Your task to perform on an android device: Go to Yahoo.com Image 0: 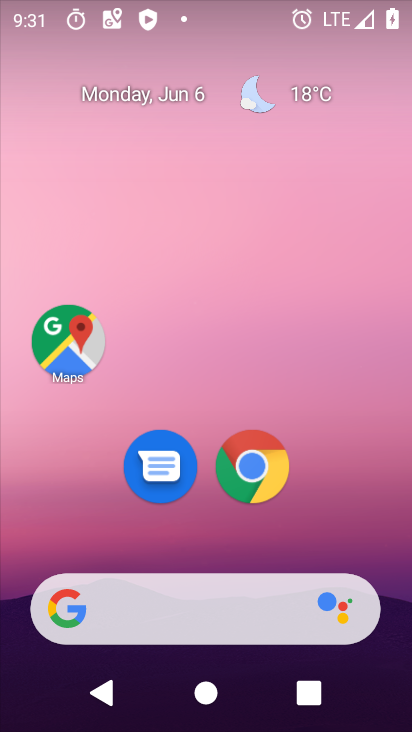
Step 0: drag from (216, 499) to (260, 139)
Your task to perform on an android device: Go to Yahoo.com Image 1: 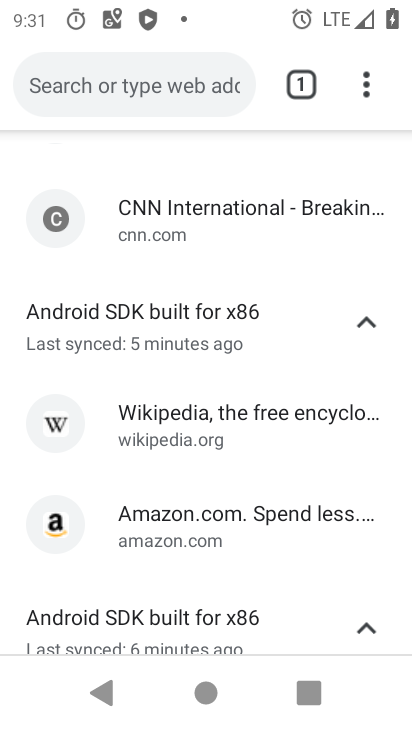
Step 1: press home button
Your task to perform on an android device: Go to Yahoo.com Image 2: 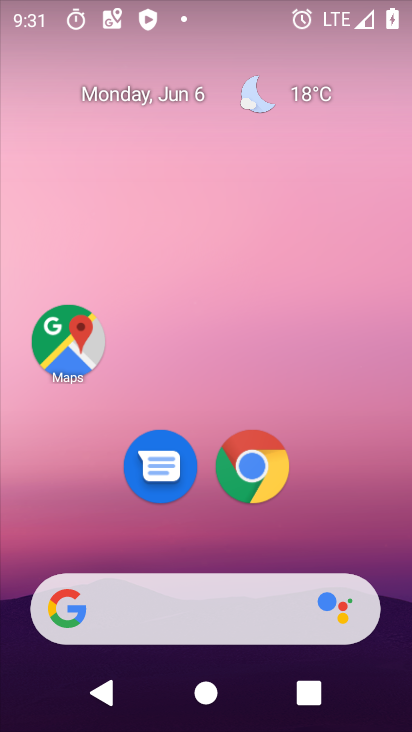
Step 2: click (178, 615)
Your task to perform on an android device: Go to Yahoo.com Image 3: 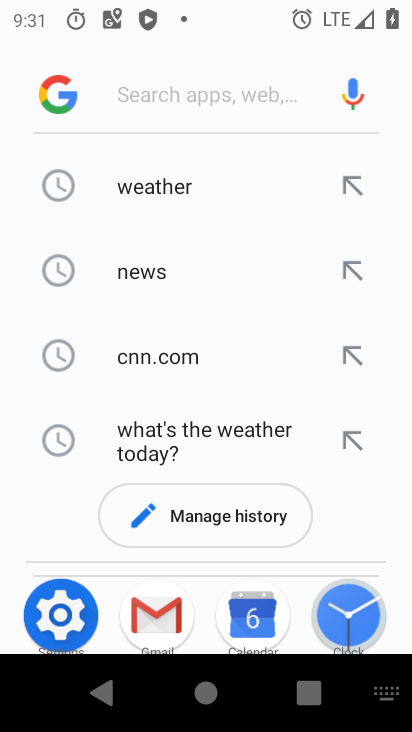
Step 3: type "Yahoo.com"
Your task to perform on an android device: Go to Yahoo.com Image 4: 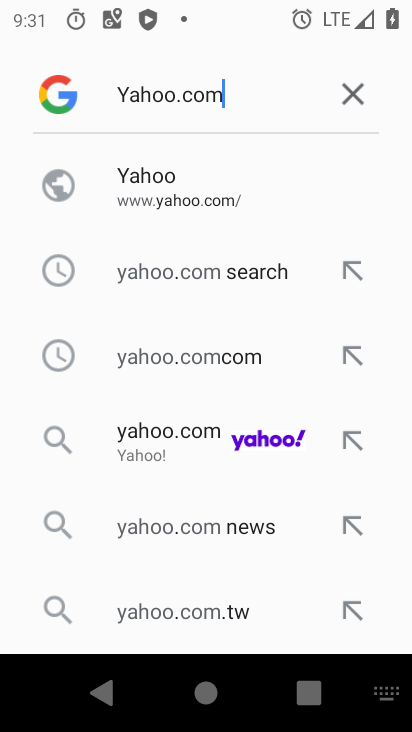
Step 4: type ""
Your task to perform on an android device: Go to Yahoo.com Image 5: 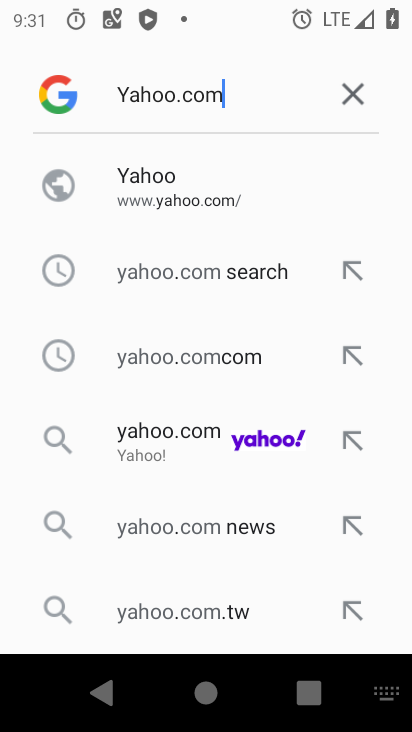
Step 5: click (189, 457)
Your task to perform on an android device: Go to Yahoo.com Image 6: 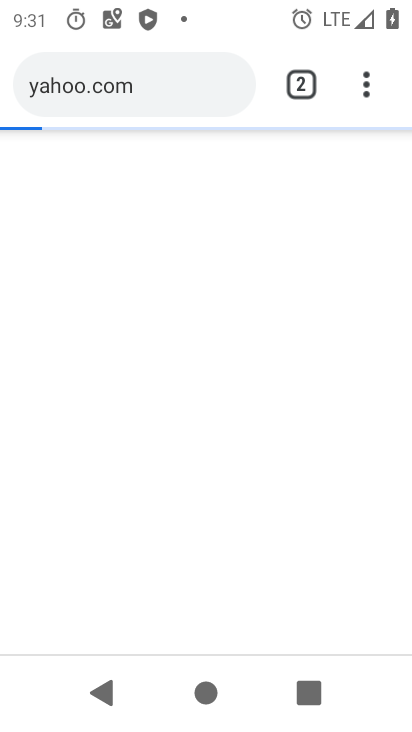
Step 6: task complete